Your task to perform on an android device: stop showing notifications on the lock screen Image 0: 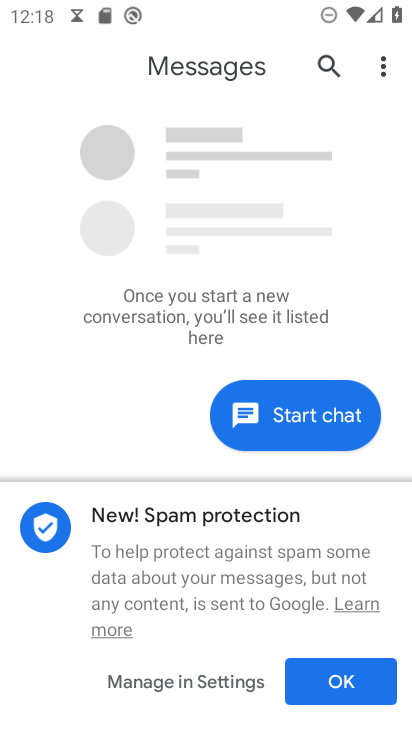
Step 0: press home button
Your task to perform on an android device: stop showing notifications on the lock screen Image 1: 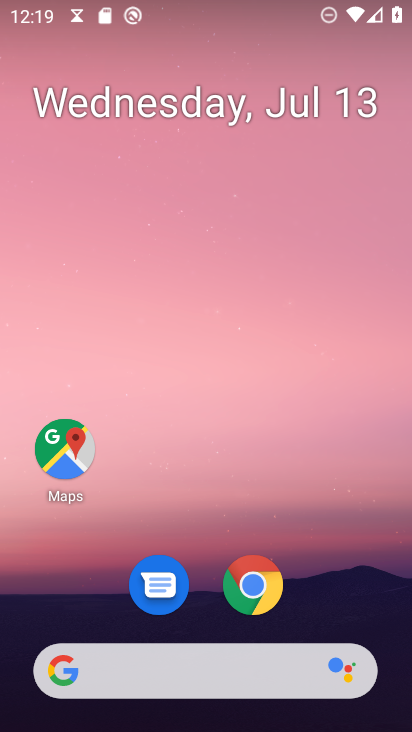
Step 1: drag from (206, 685) to (323, 162)
Your task to perform on an android device: stop showing notifications on the lock screen Image 2: 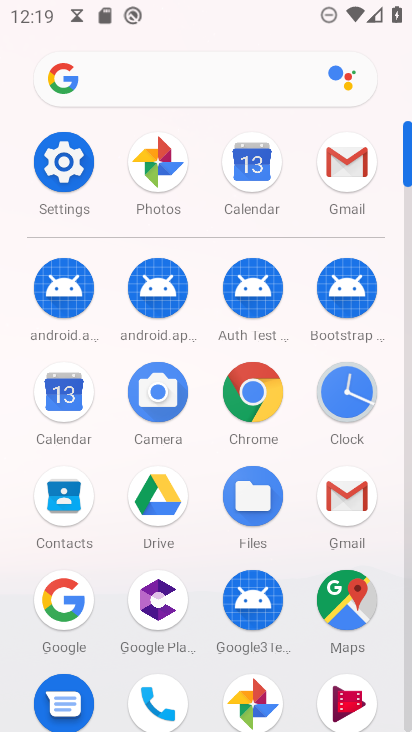
Step 2: click (64, 163)
Your task to perform on an android device: stop showing notifications on the lock screen Image 3: 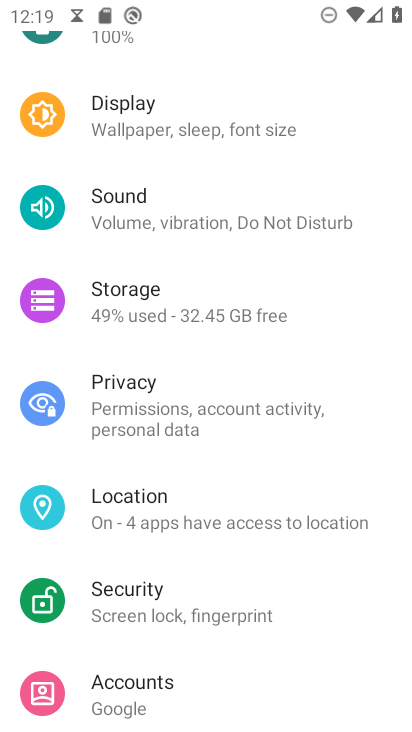
Step 3: drag from (268, 123) to (261, 590)
Your task to perform on an android device: stop showing notifications on the lock screen Image 4: 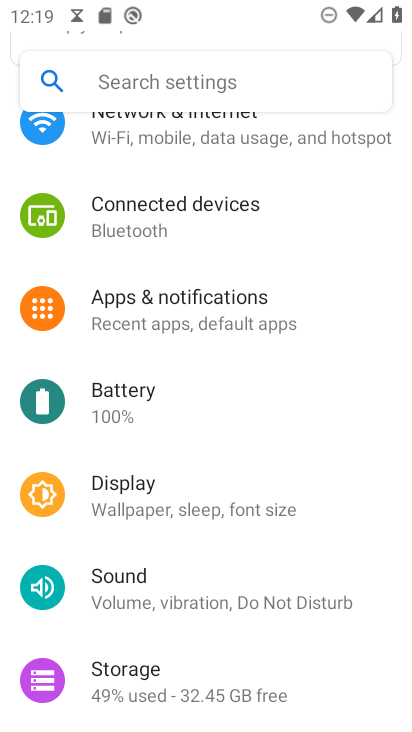
Step 4: click (220, 307)
Your task to perform on an android device: stop showing notifications on the lock screen Image 5: 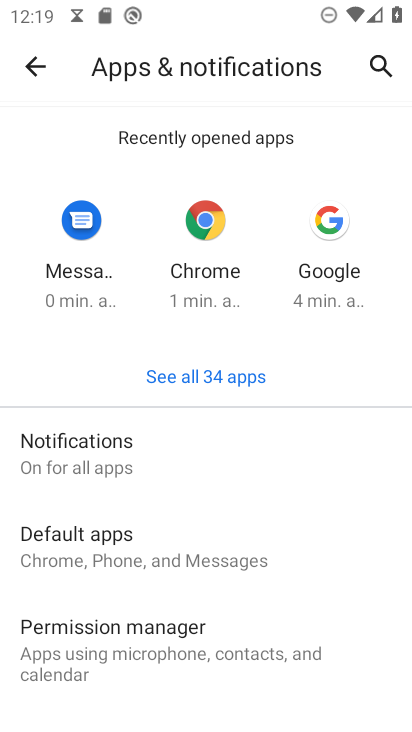
Step 5: click (110, 473)
Your task to perform on an android device: stop showing notifications on the lock screen Image 6: 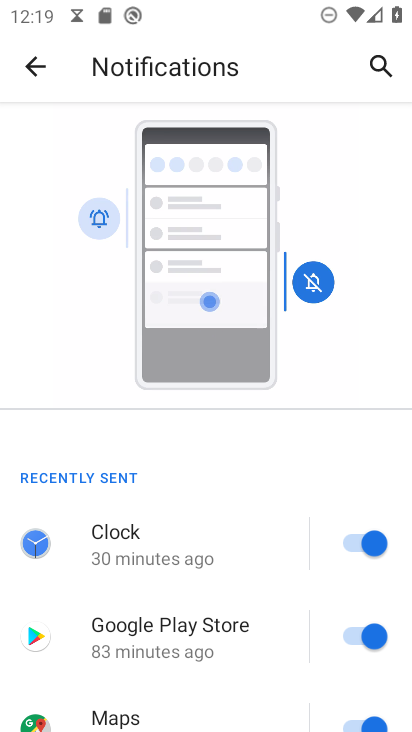
Step 6: drag from (169, 673) to (376, 74)
Your task to perform on an android device: stop showing notifications on the lock screen Image 7: 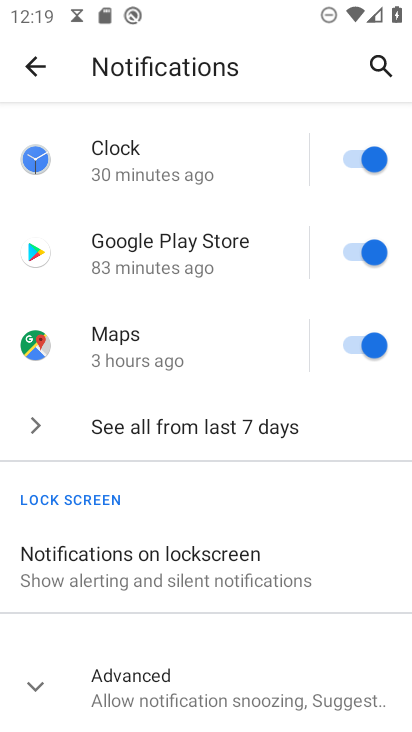
Step 7: click (179, 574)
Your task to perform on an android device: stop showing notifications on the lock screen Image 8: 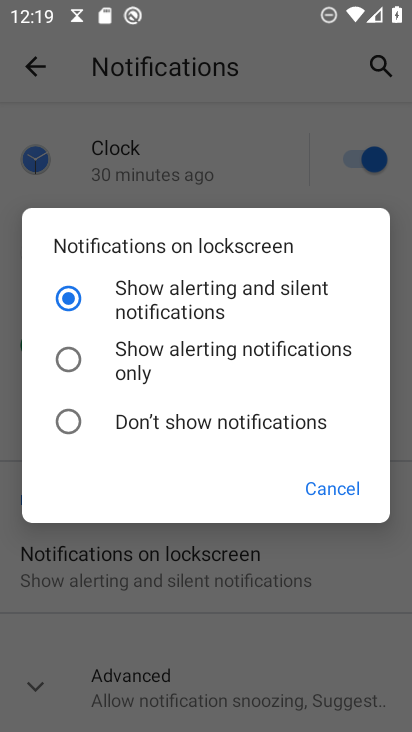
Step 8: click (75, 418)
Your task to perform on an android device: stop showing notifications on the lock screen Image 9: 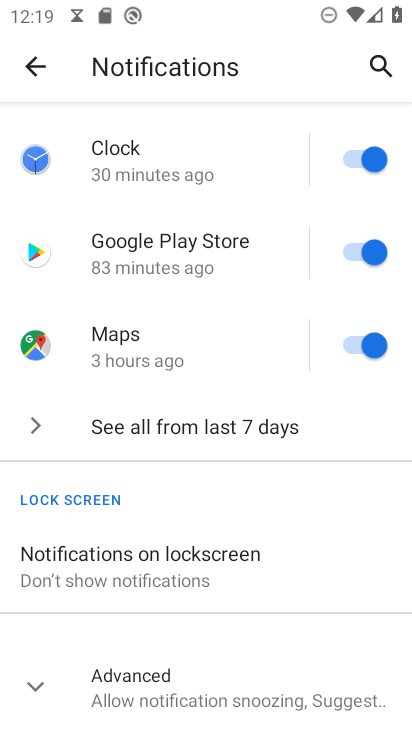
Step 9: task complete